Your task to perform on an android device: Open Google Maps Image 0: 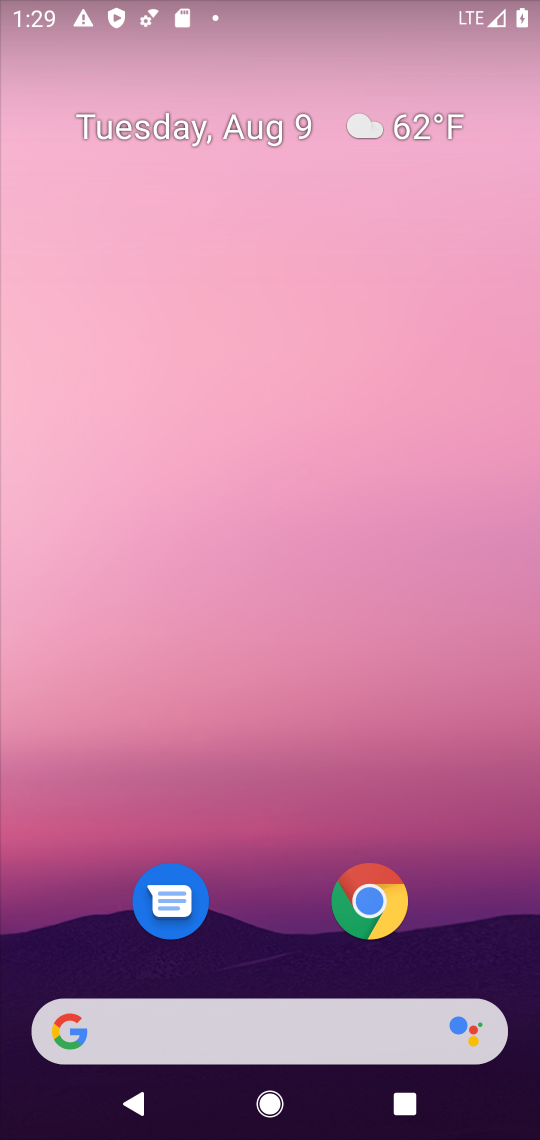
Step 0: drag from (527, 1030) to (441, 175)
Your task to perform on an android device: Open Google Maps Image 1: 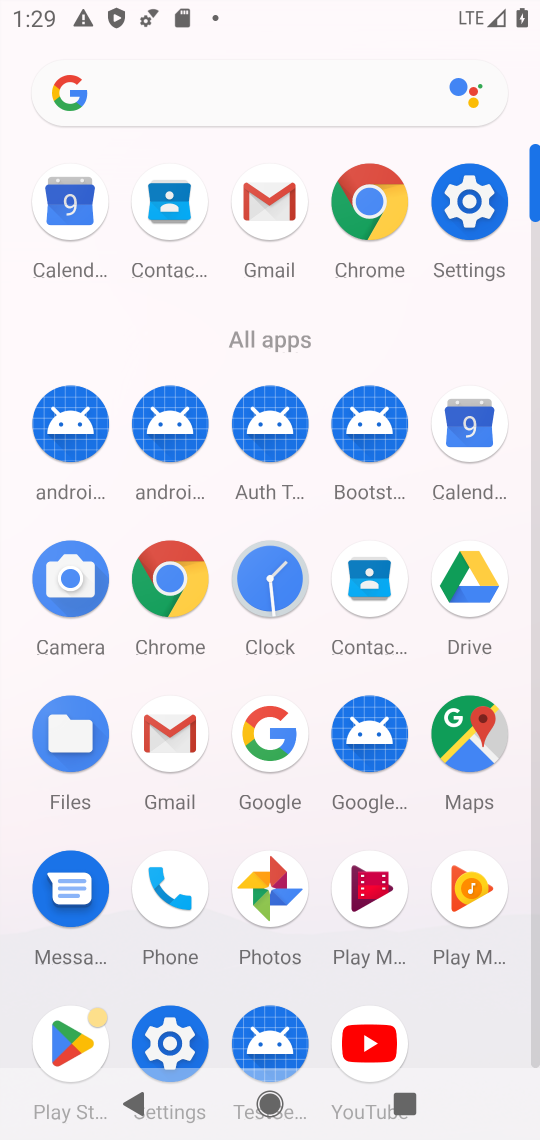
Step 1: click (537, 1019)
Your task to perform on an android device: Open Google Maps Image 2: 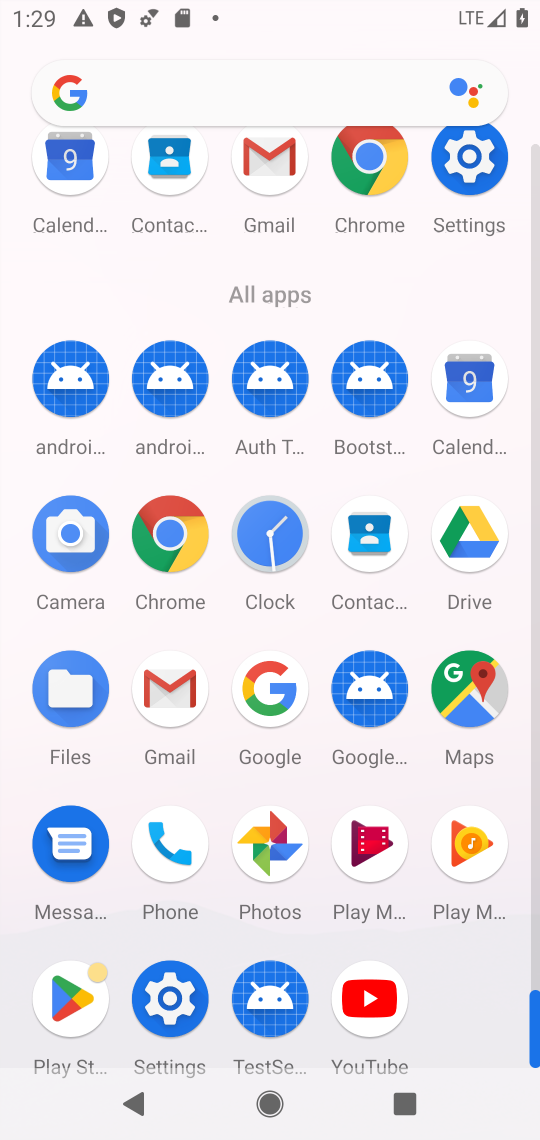
Step 2: click (471, 684)
Your task to perform on an android device: Open Google Maps Image 3: 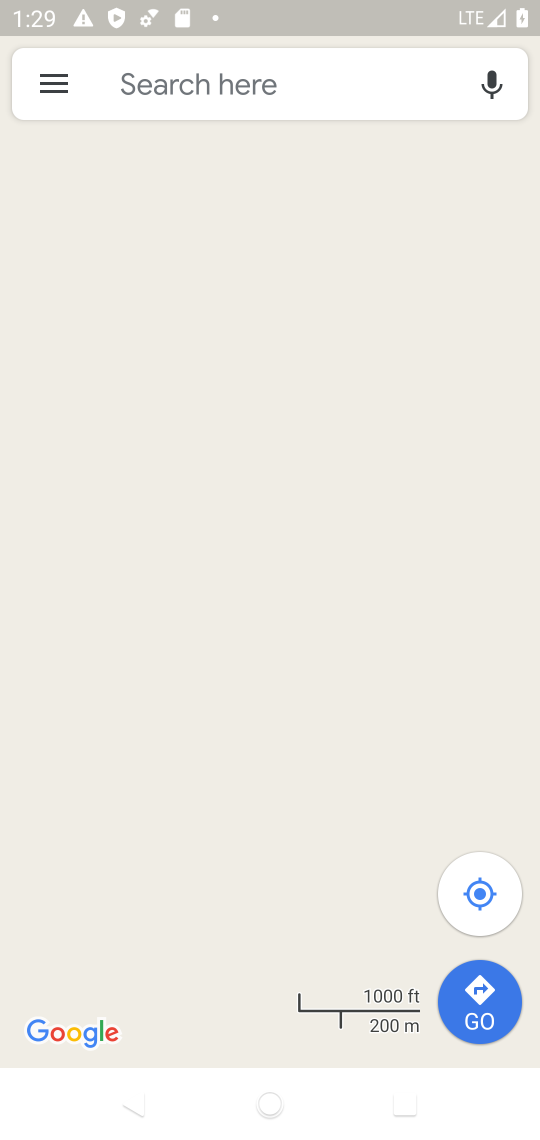
Step 3: task complete